Your task to perform on an android device: turn vacation reply on in the gmail app Image 0: 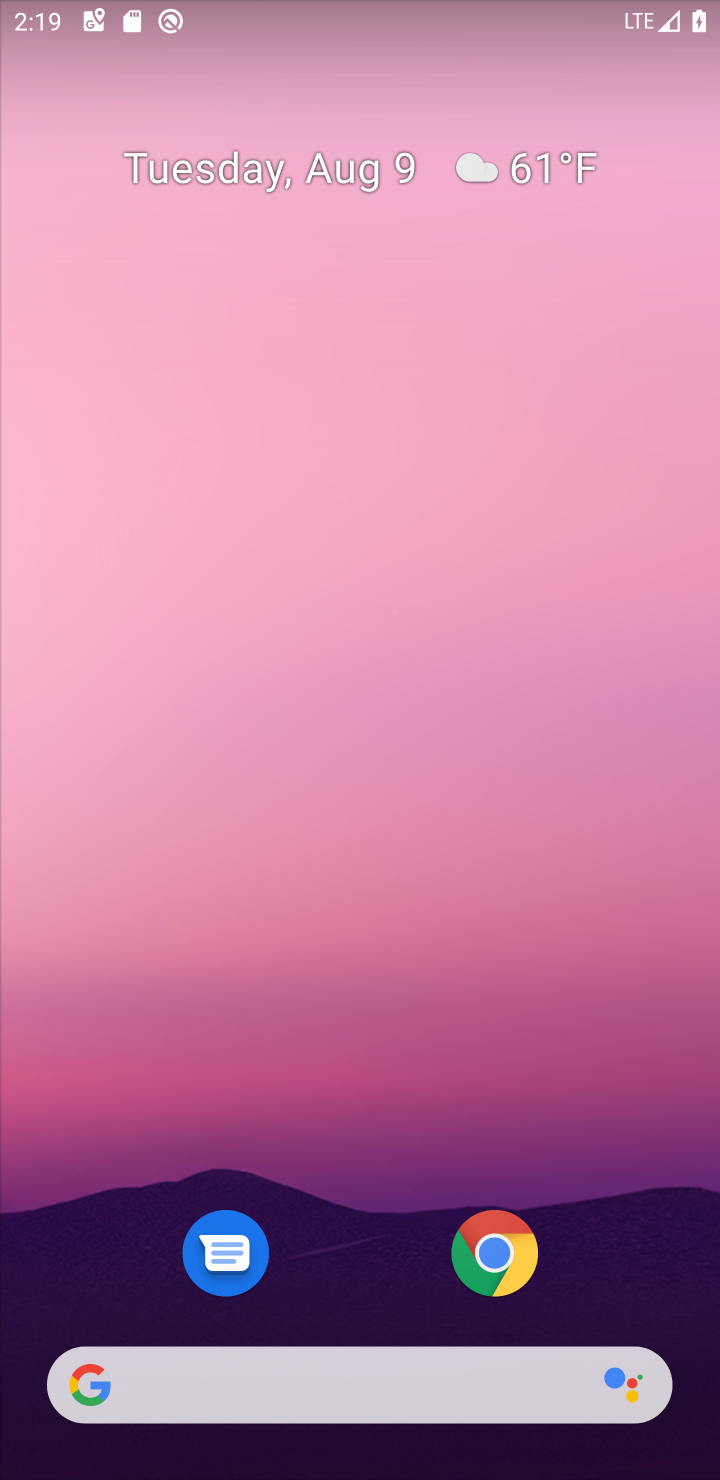
Step 0: drag from (643, 1279) to (351, 29)
Your task to perform on an android device: turn vacation reply on in the gmail app Image 1: 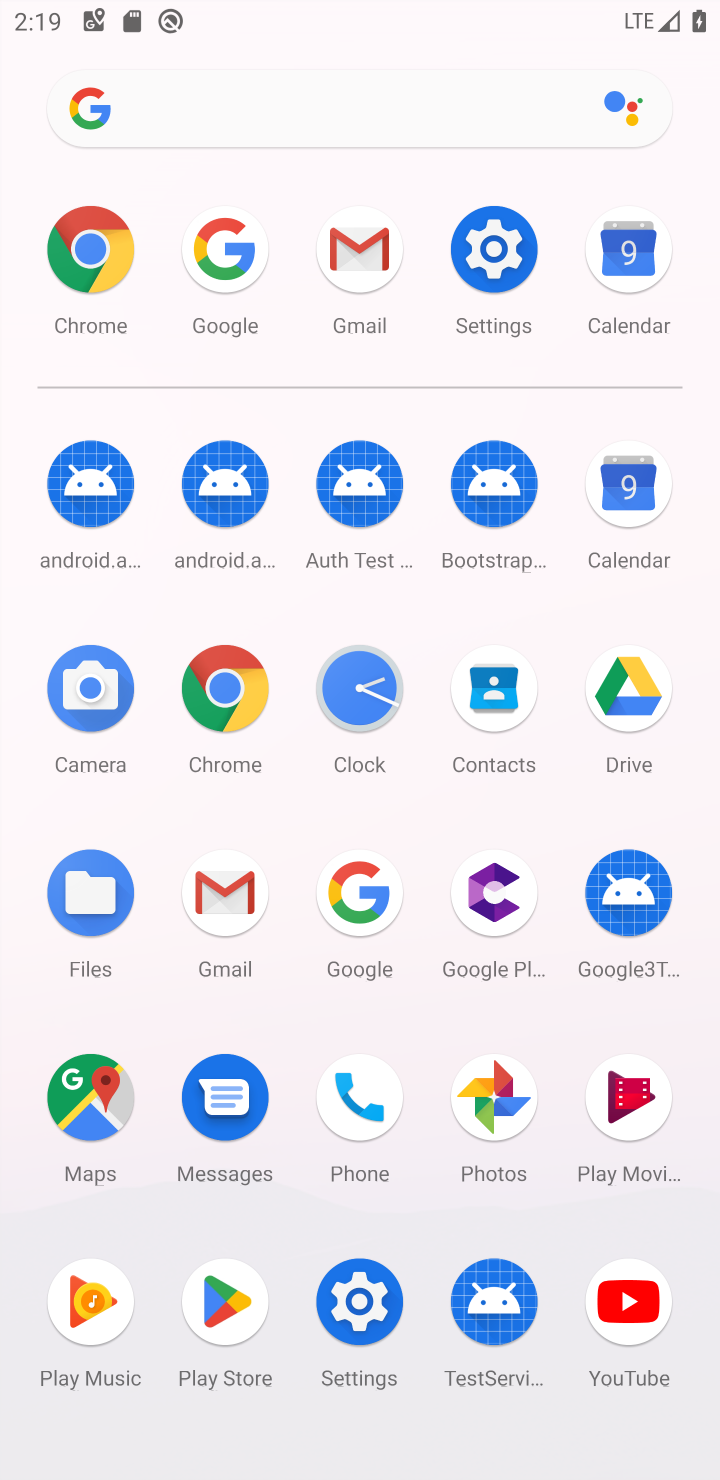
Step 1: click (248, 899)
Your task to perform on an android device: turn vacation reply on in the gmail app Image 2: 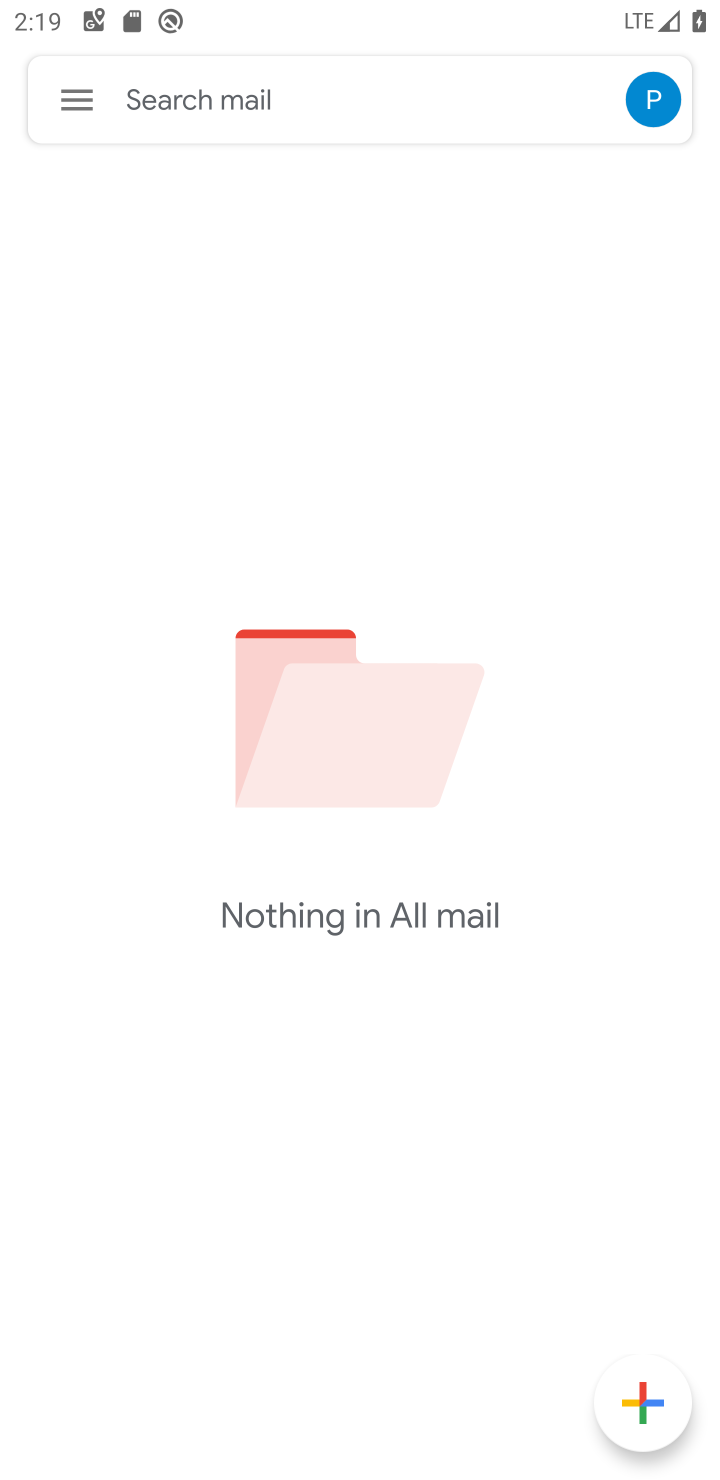
Step 2: click (53, 101)
Your task to perform on an android device: turn vacation reply on in the gmail app Image 3: 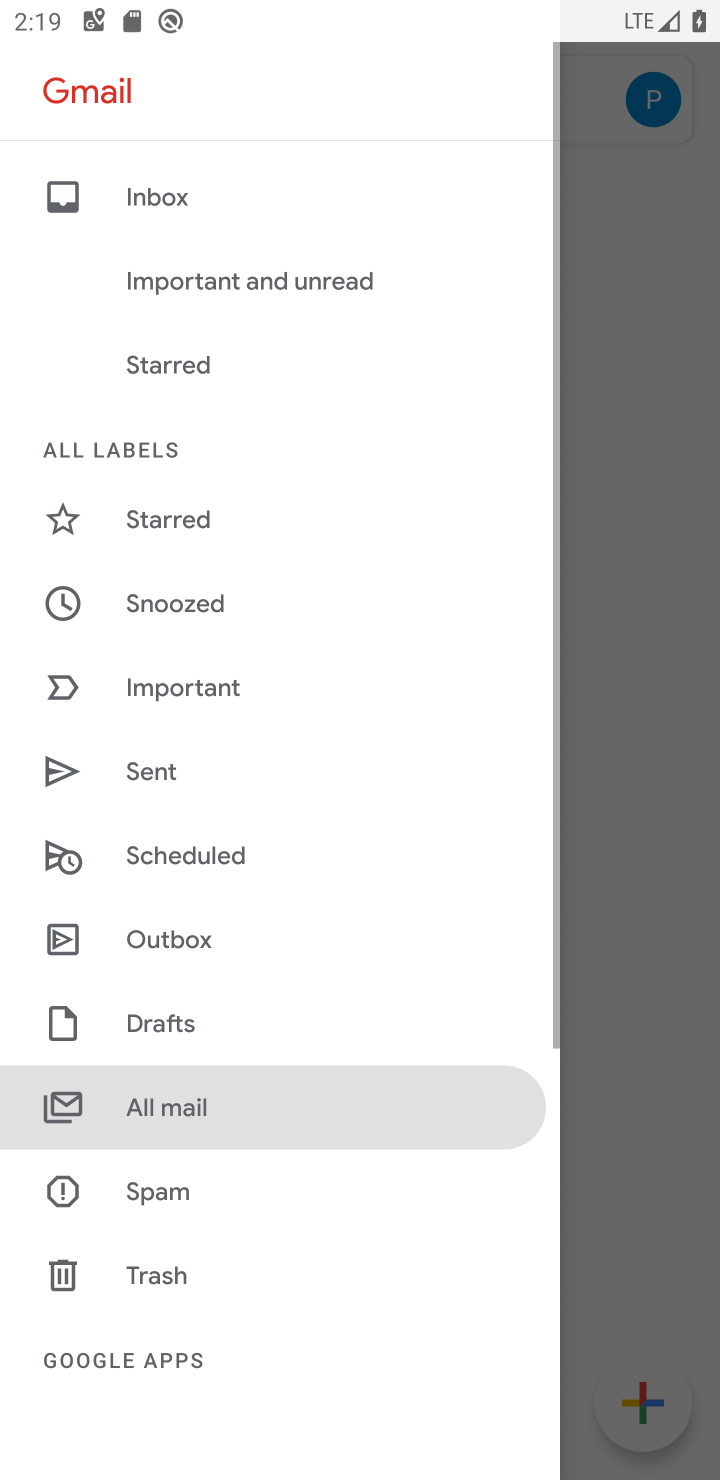
Step 3: drag from (127, 1357) to (300, 71)
Your task to perform on an android device: turn vacation reply on in the gmail app Image 4: 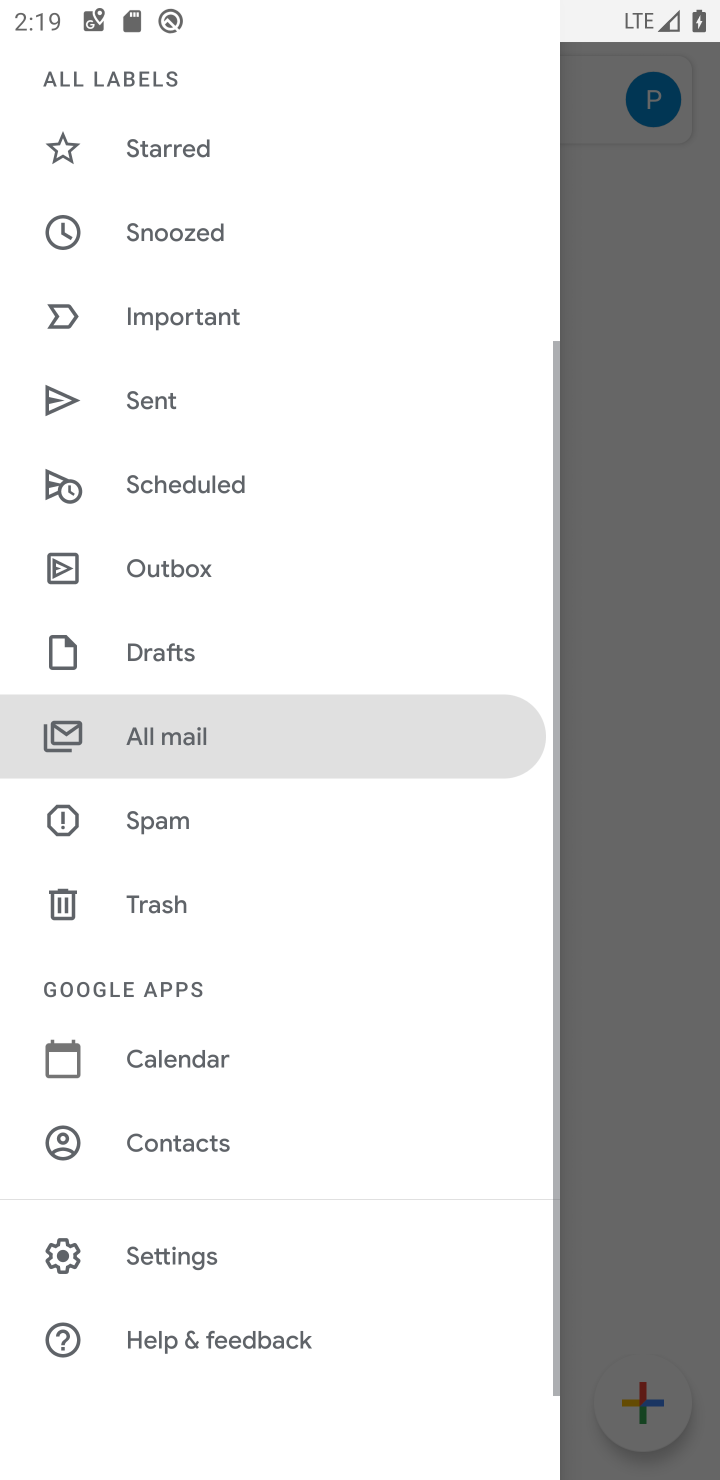
Step 4: click (158, 1250)
Your task to perform on an android device: turn vacation reply on in the gmail app Image 5: 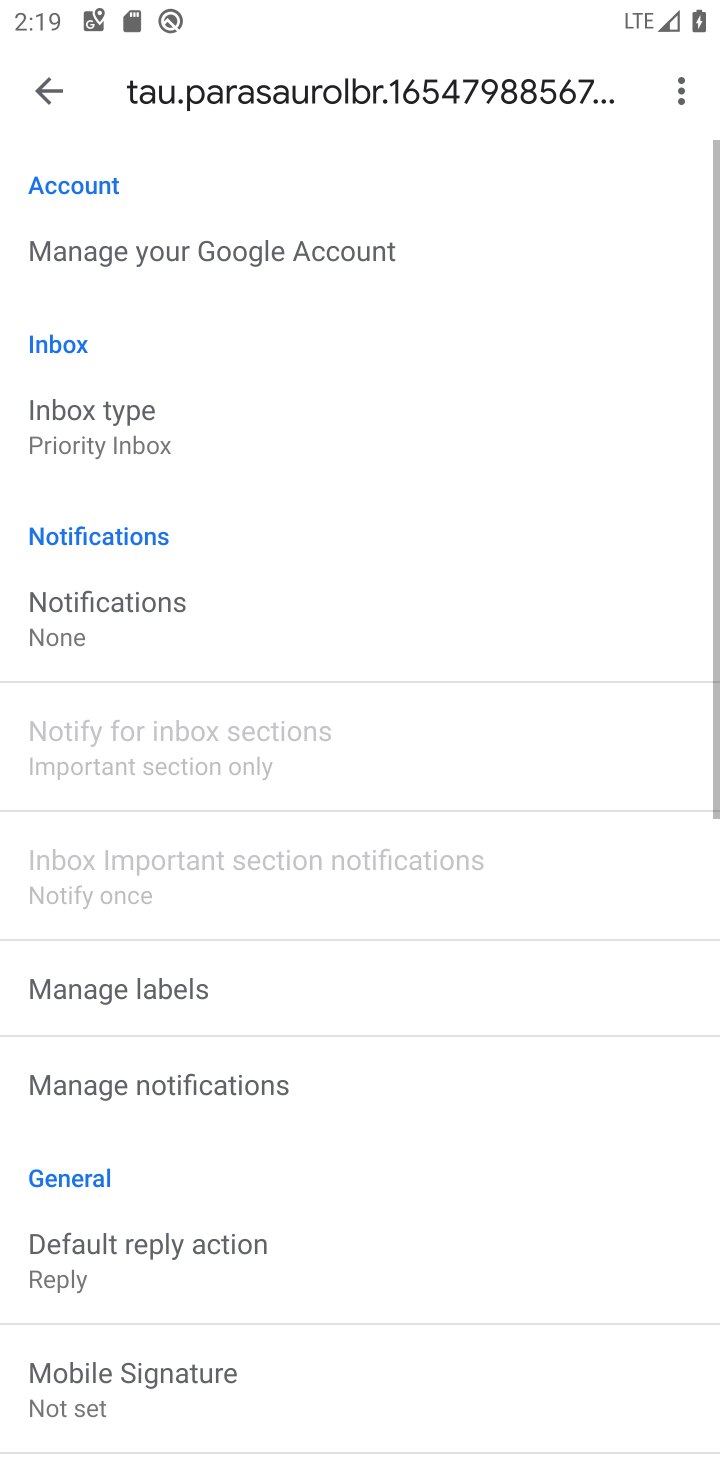
Step 5: drag from (112, 1253) to (410, 182)
Your task to perform on an android device: turn vacation reply on in the gmail app Image 6: 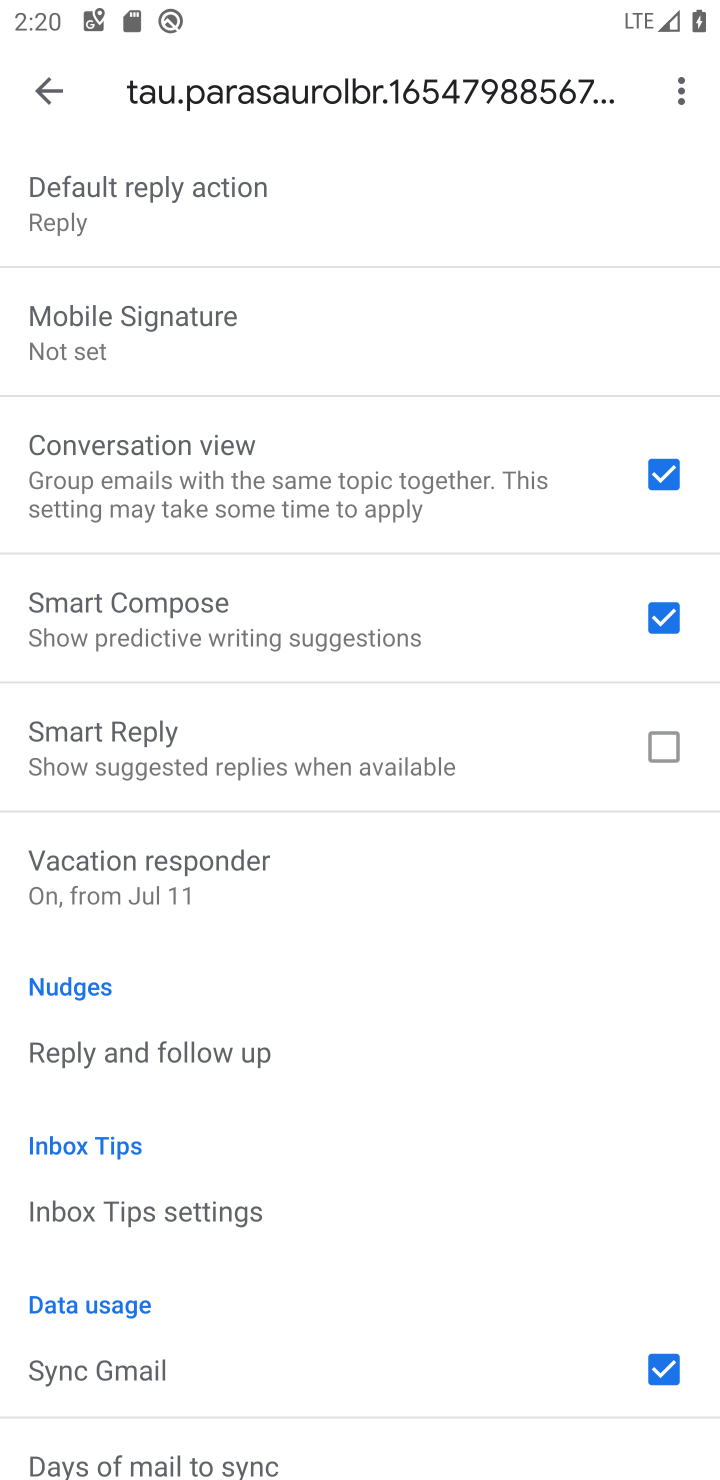
Step 6: click (275, 863)
Your task to perform on an android device: turn vacation reply on in the gmail app Image 7: 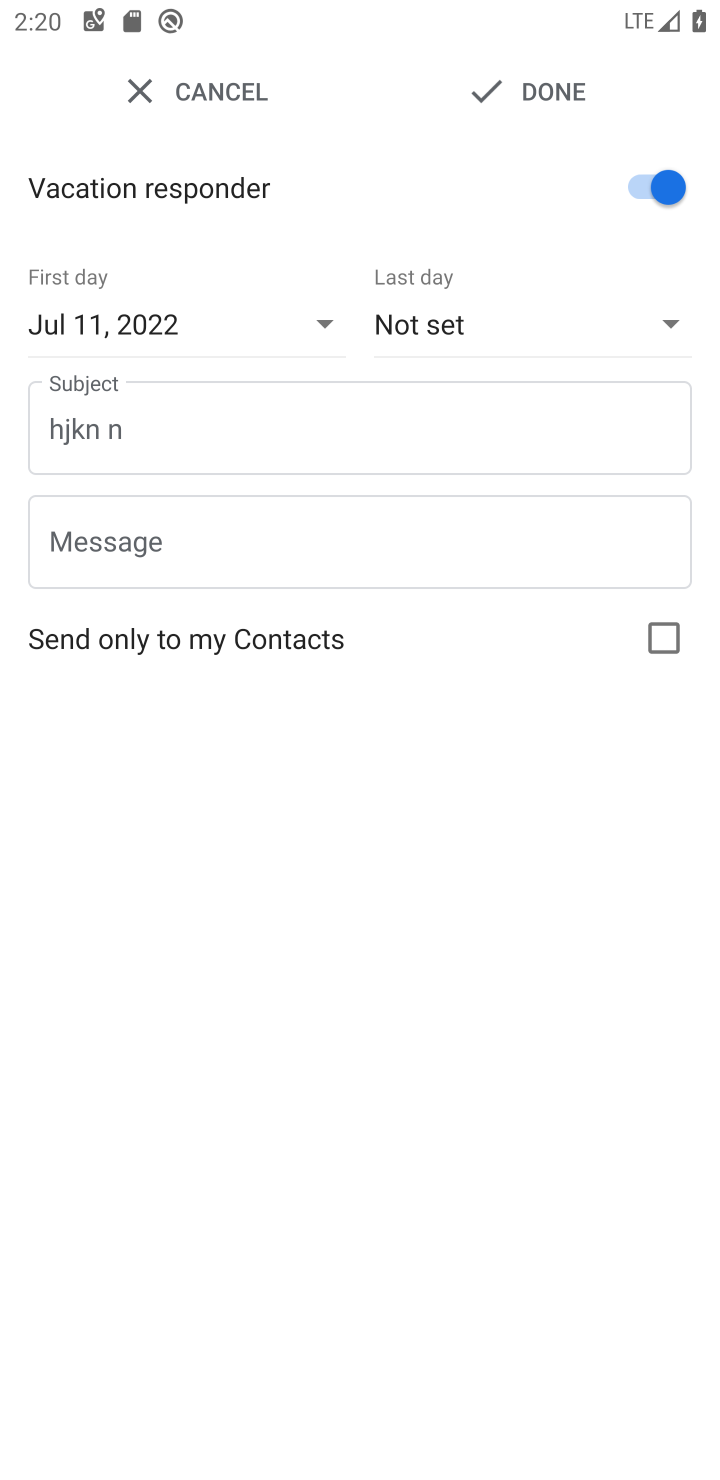
Step 7: task complete